Your task to perform on an android device: Open Chrome and go to the settings page Image 0: 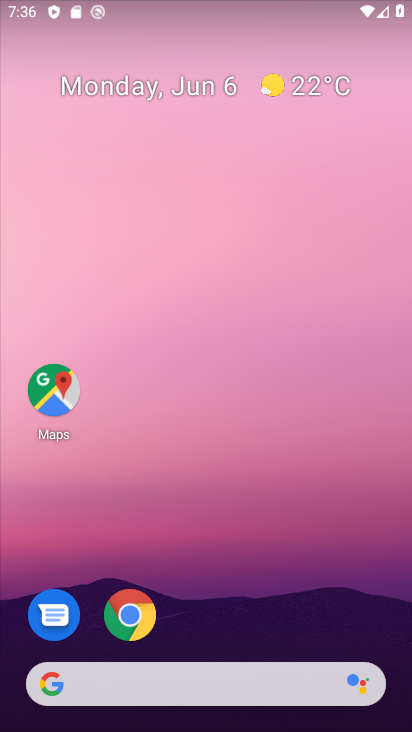
Step 0: click (127, 607)
Your task to perform on an android device: Open Chrome and go to the settings page Image 1: 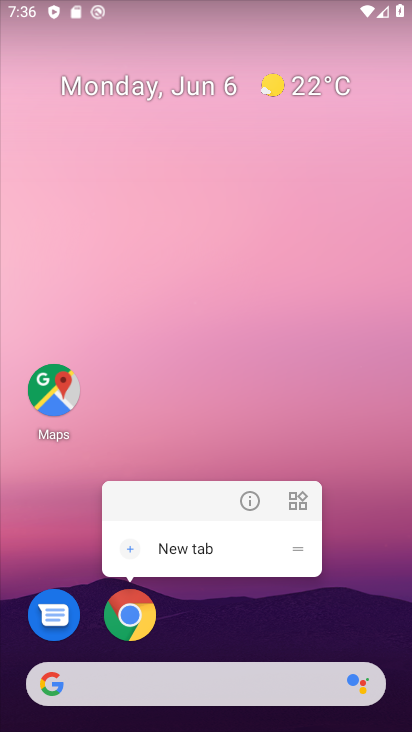
Step 1: click (127, 607)
Your task to perform on an android device: Open Chrome and go to the settings page Image 2: 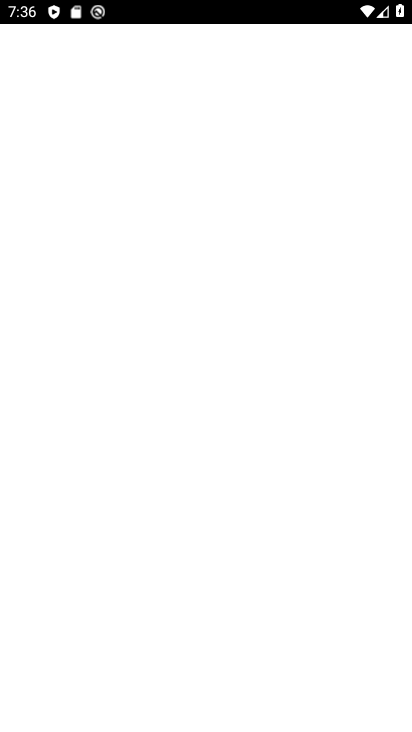
Step 2: click (127, 607)
Your task to perform on an android device: Open Chrome and go to the settings page Image 3: 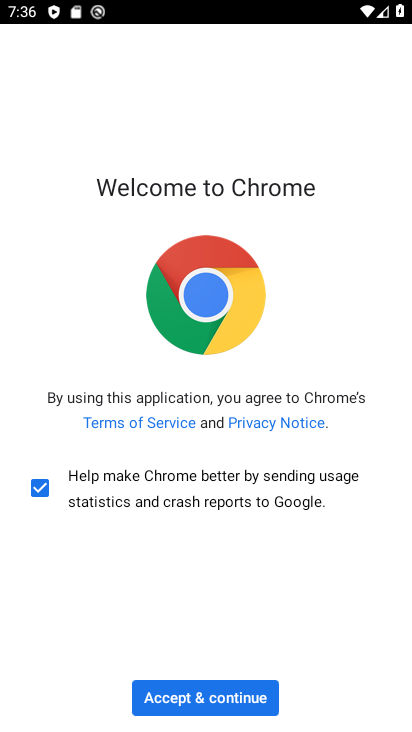
Step 3: click (250, 680)
Your task to perform on an android device: Open Chrome and go to the settings page Image 4: 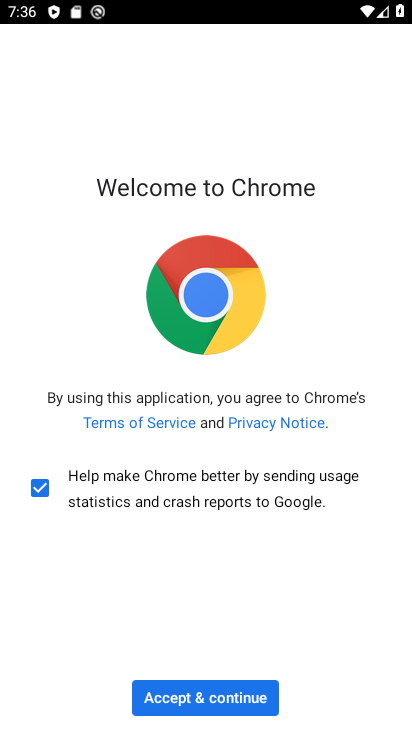
Step 4: click (252, 687)
Your task to perform on an android device: Open Chrome and go to the settings page Image 5: 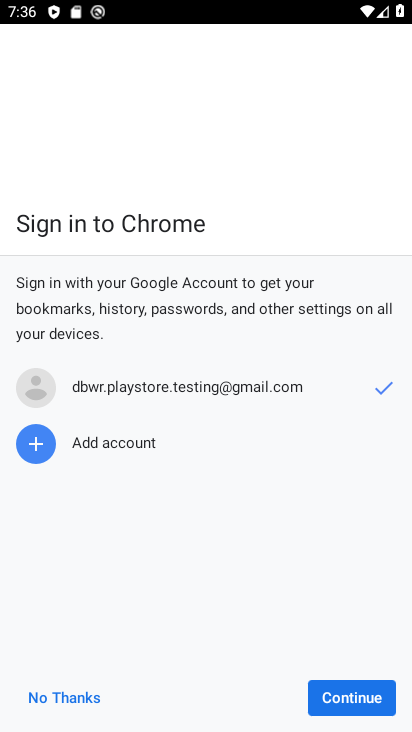
Step 5: click (317, 696)
Your task to perform on an android device: Open Chrome and go to the settings page Image 6: 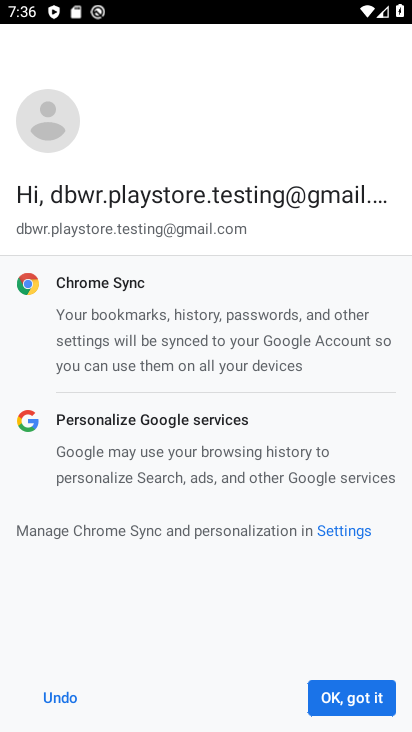
Step 6: click (317, 696)
Your task to perform on an android device: Open Chrome and go to the settings page Image 7: 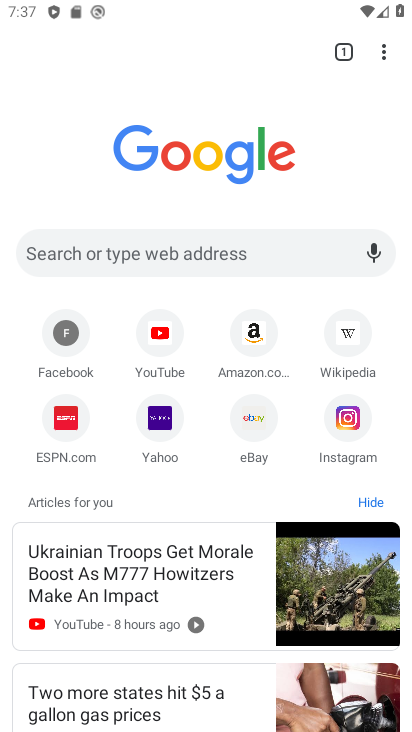
Step 7: click (385, 45)
Your task to perform on an android device: Open Chrome and go to the settings page Image 8: 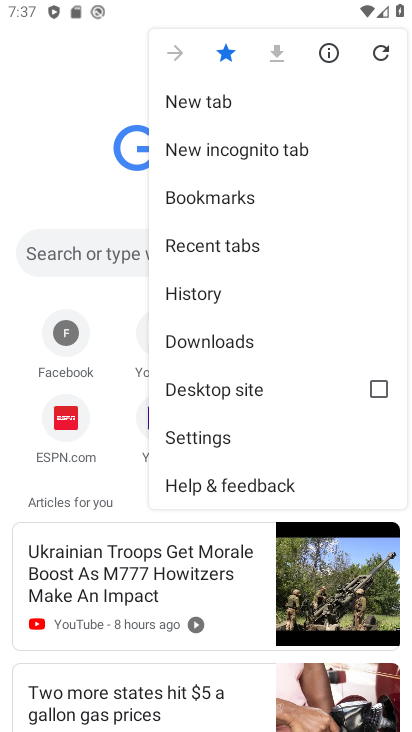
Step 8: click (194, 437)
Your task to perform on an android device: Open Chrome and go to the settings page Image 9: 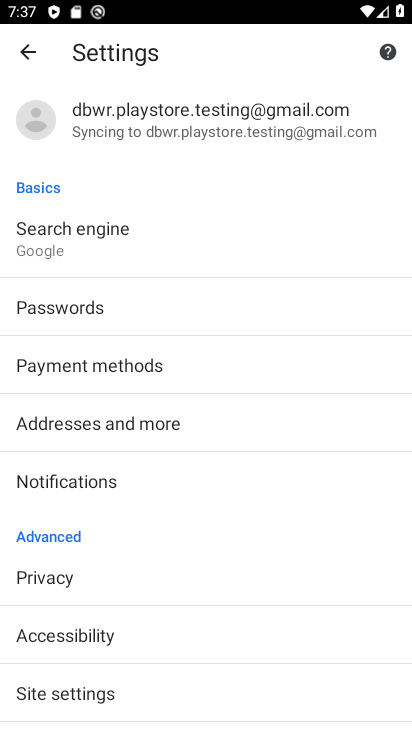
Step 9: task complete